Your task to perform on an android device: find which apps use the phone's location Image 0: 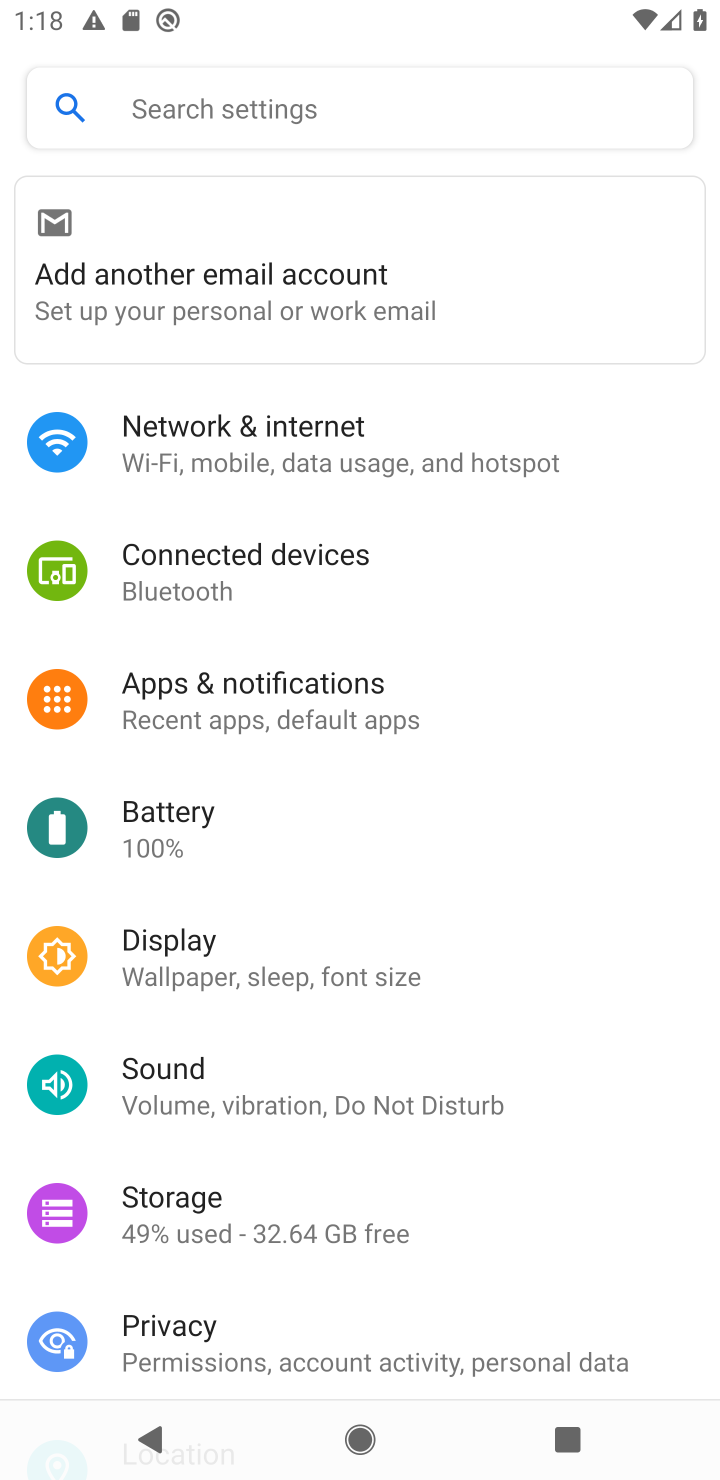
Step 0: drag from (282, 1251) to (300, 709)
Your task to perform on an android device: find which apps use the phone's location Image 1: 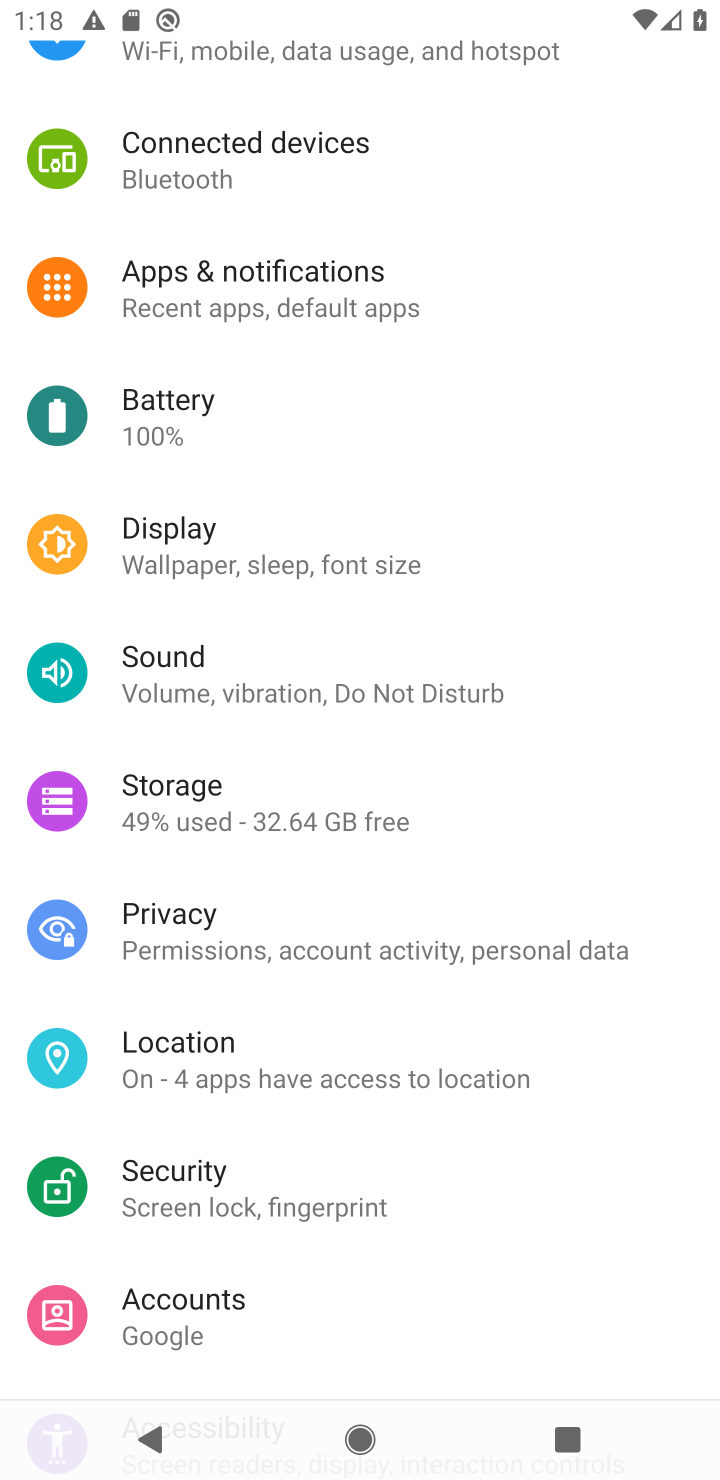
Step 1: click (238, 1080)
Your task to perform on an android device: find which apps use the phone's location Image 2: 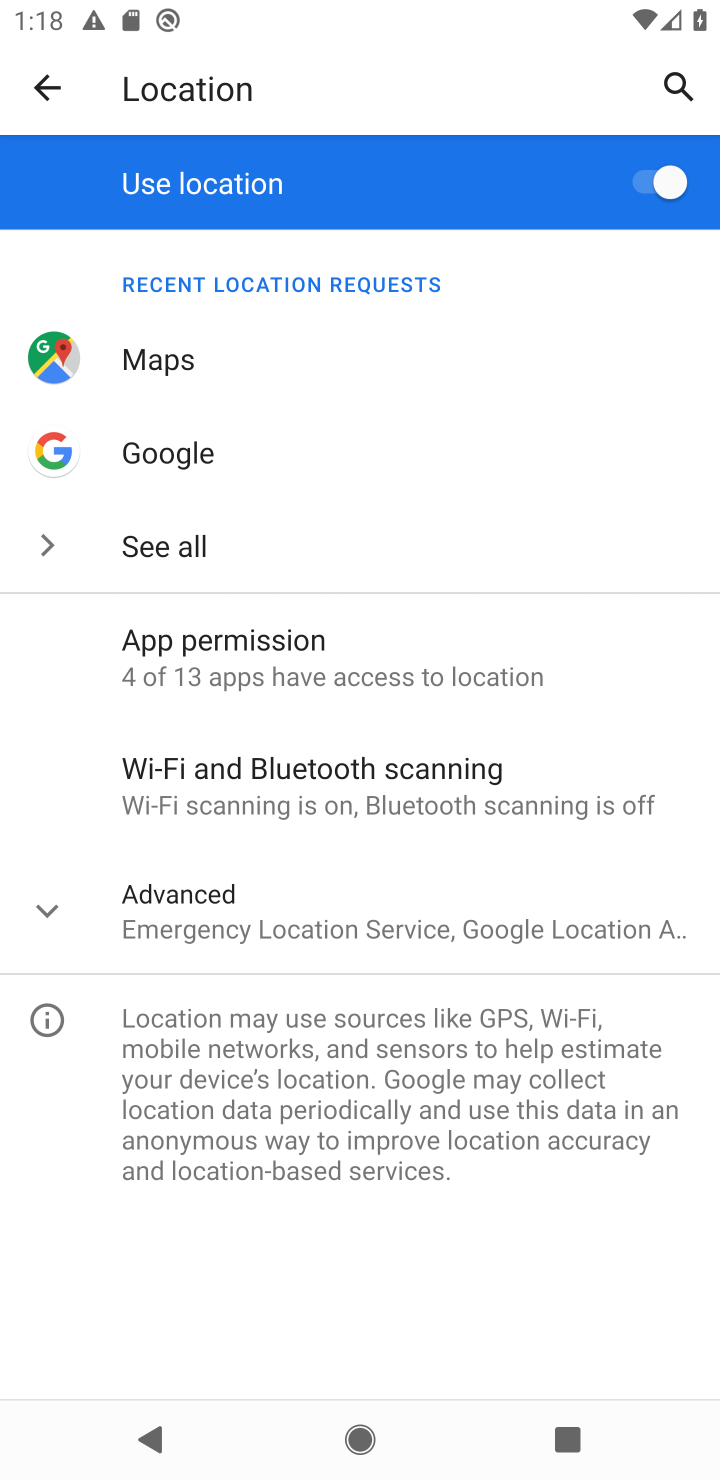
Step 2: click (234, 679)
Your task to perform on an android device: find which apps use the phone's location Image 3: 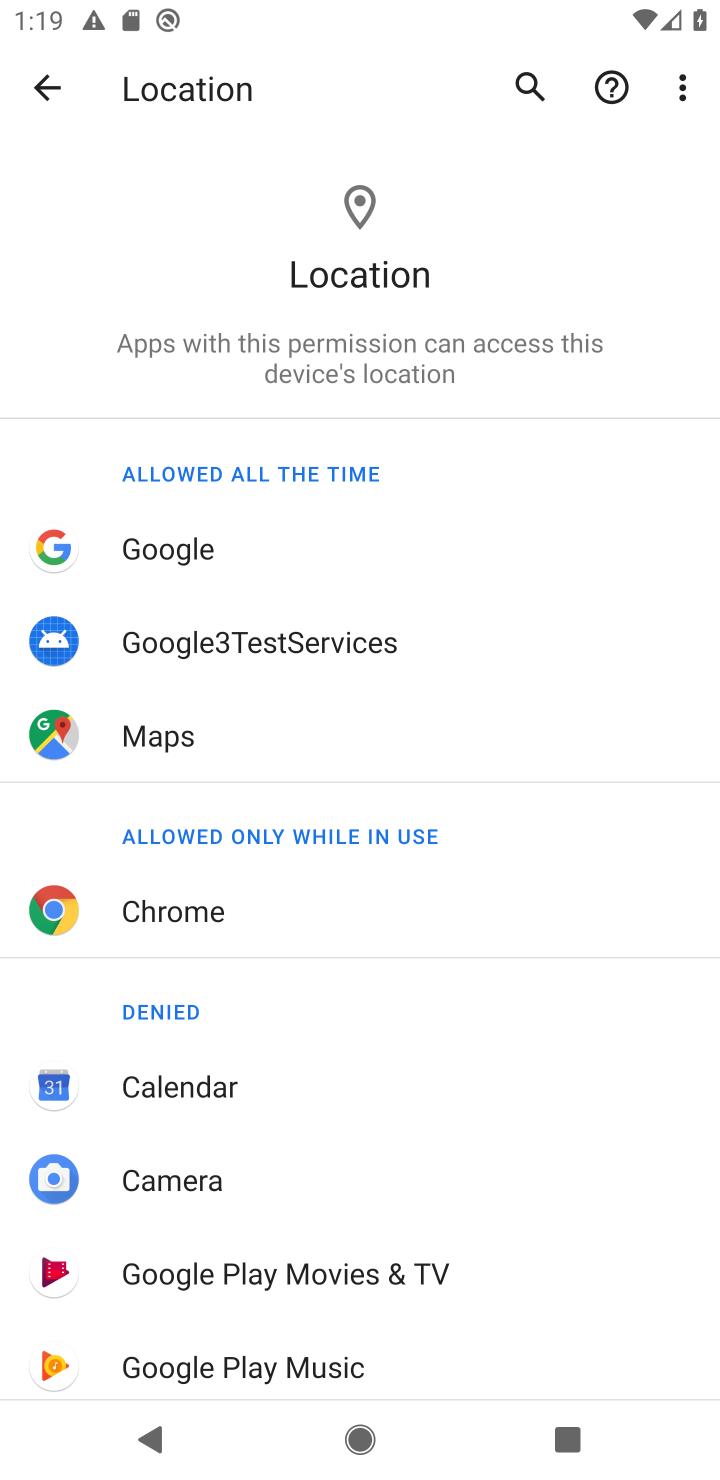
Step 3: task complete